Your task to perform on an android device: Open Google Maps Image 0: 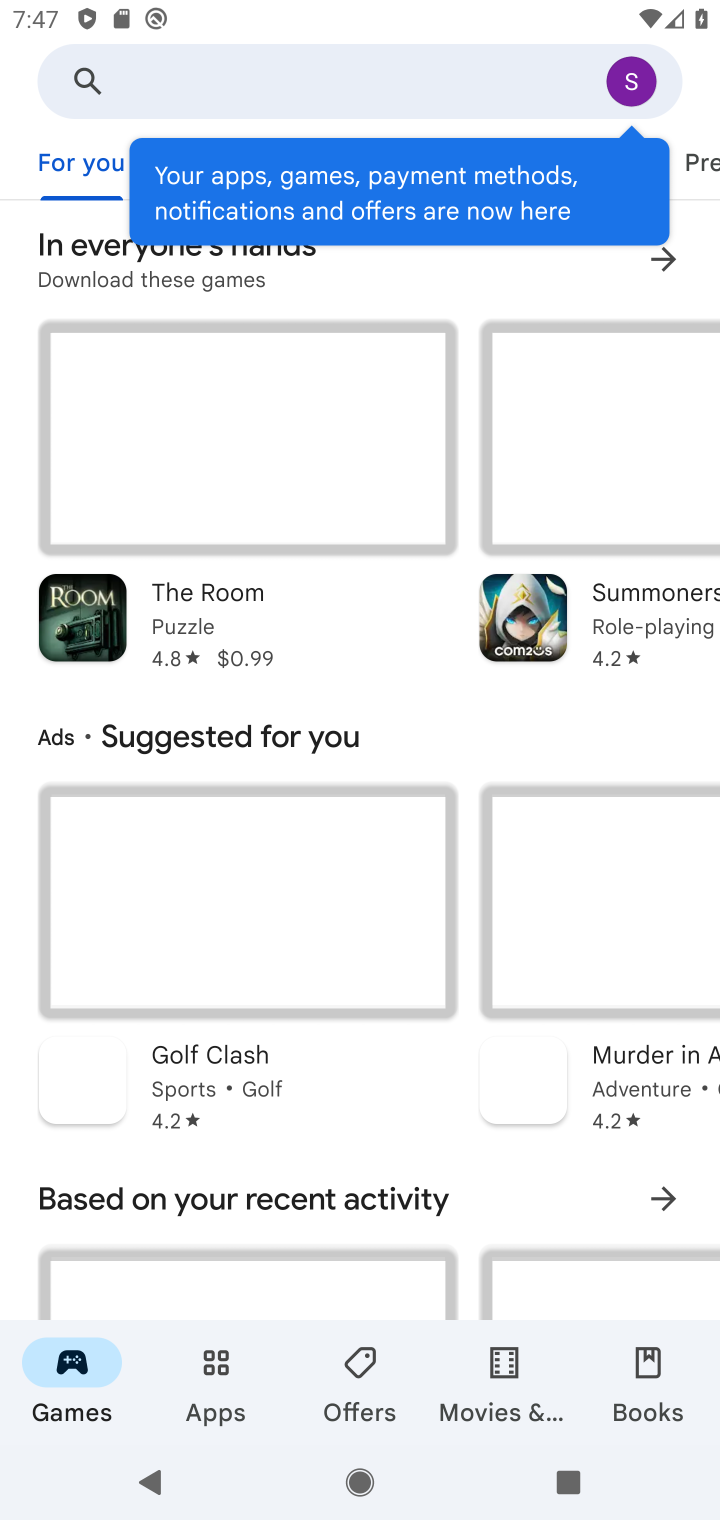
Step 0: press home button
Your task to perform on an android device: Open Google Maps Image 1: 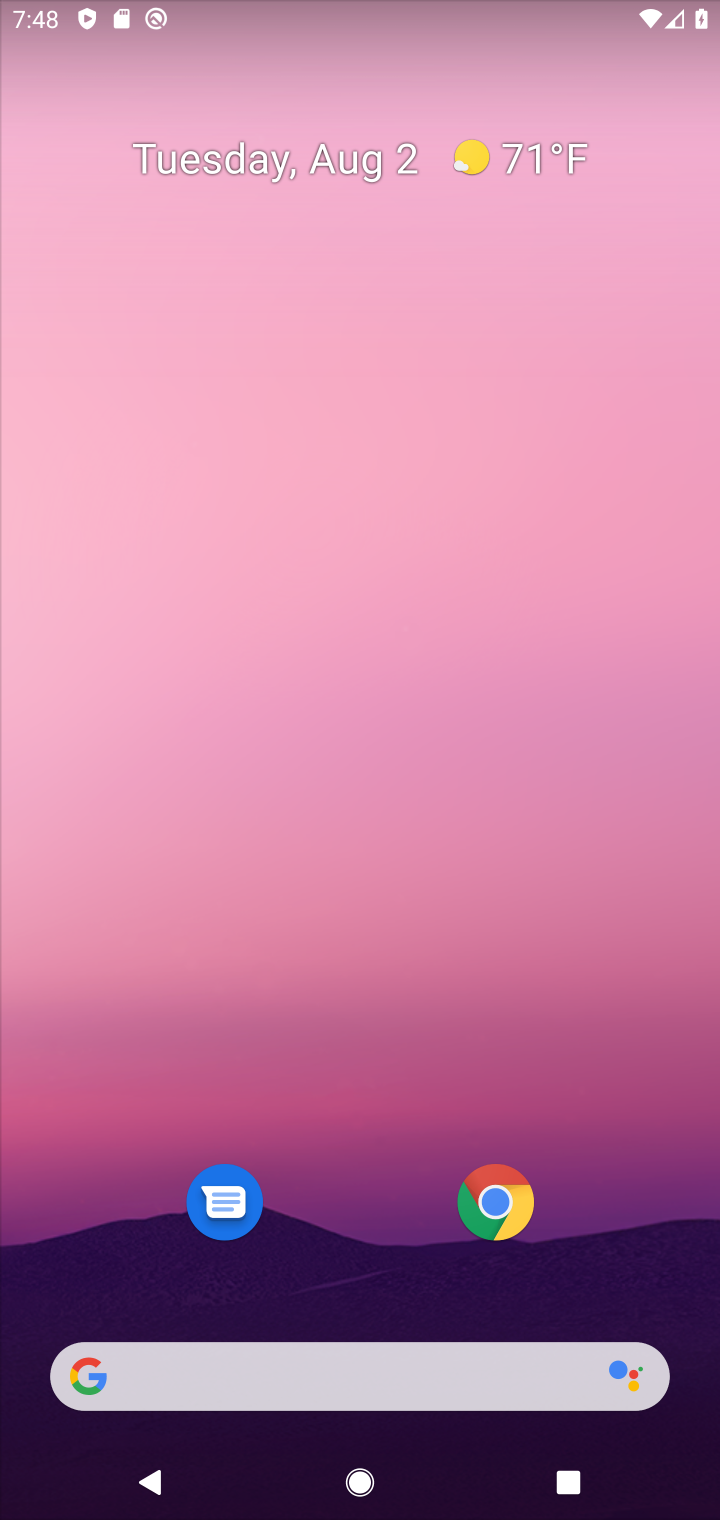
Step 1: drag from (369, 1230) to (384, 41)
Your task to perform on an android device: Open Google Maps Image 2: 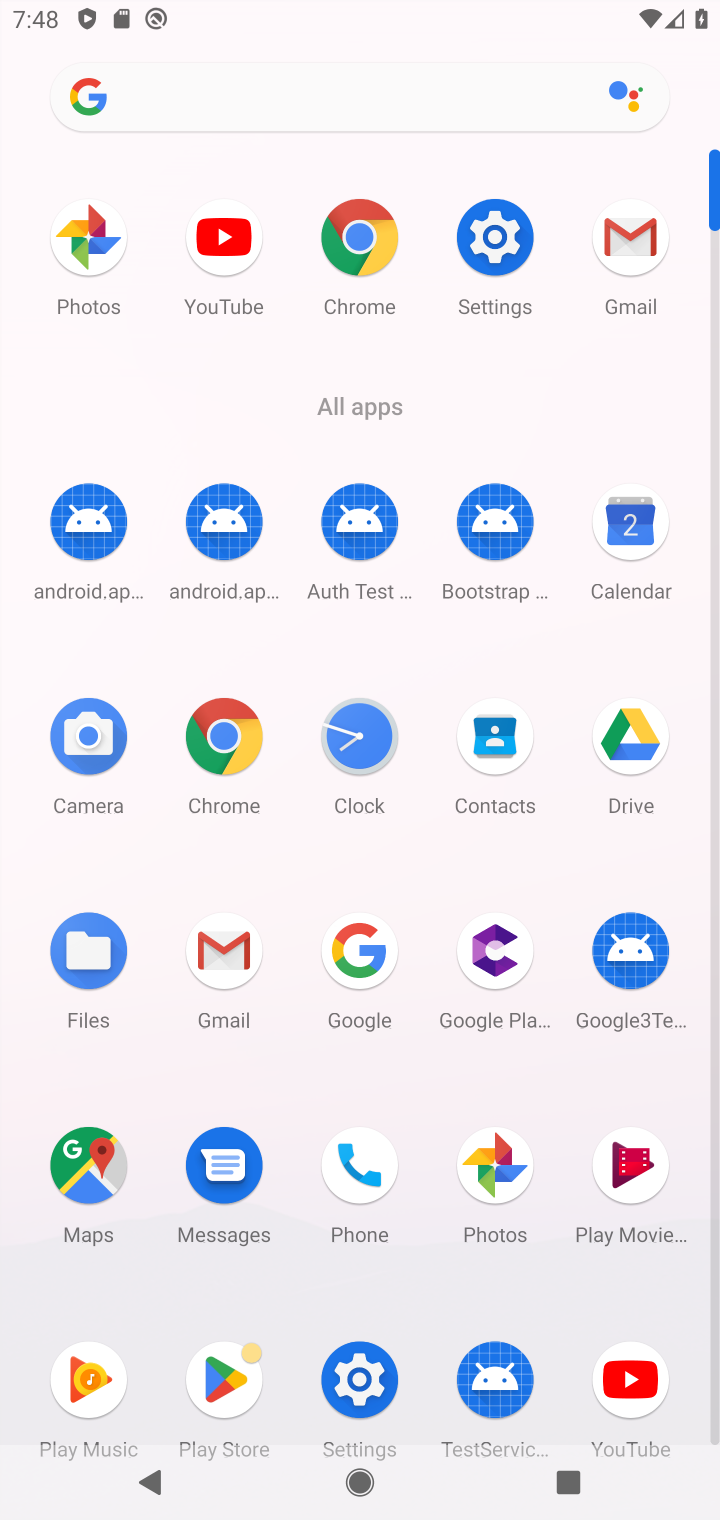
Step 2: drag from (711, 1127) to (707, 989)
Your task to perform on an android device: Open Google Maps Image 3: 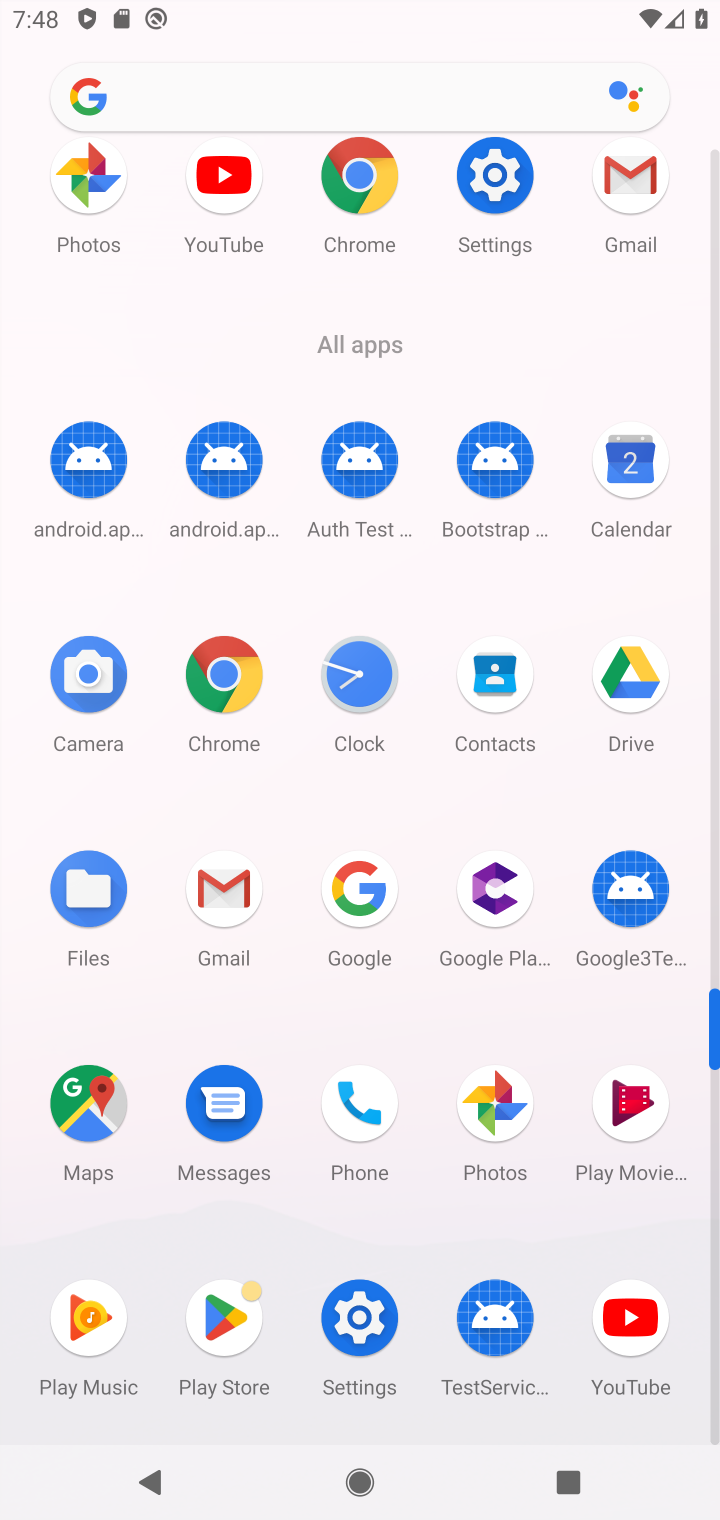
Step 3: click (93, 1121)
Your task to perform on an android device: Open Google Maps Image 4: 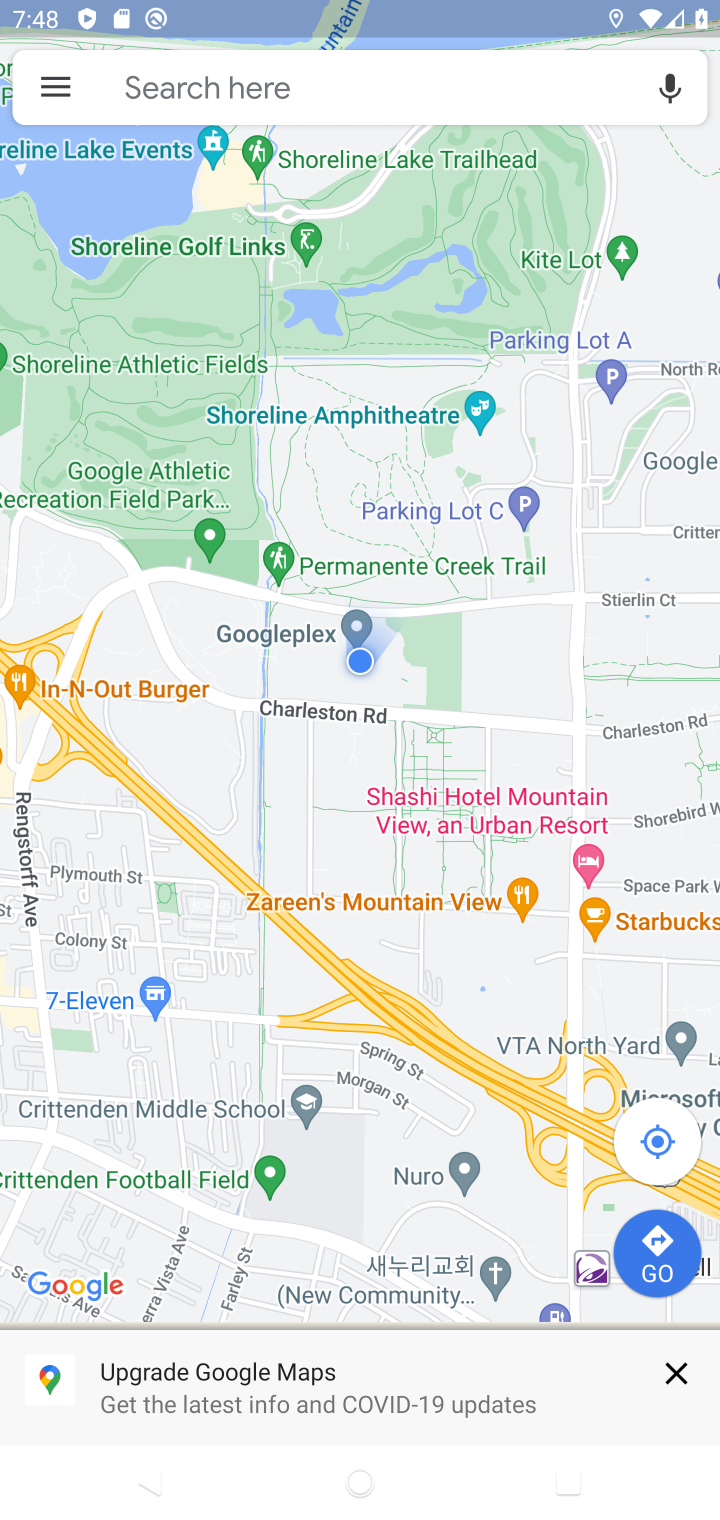
Step 4: task complete